Your task to perform on an android device: Search for pizza restaurants on Maps Image 0: 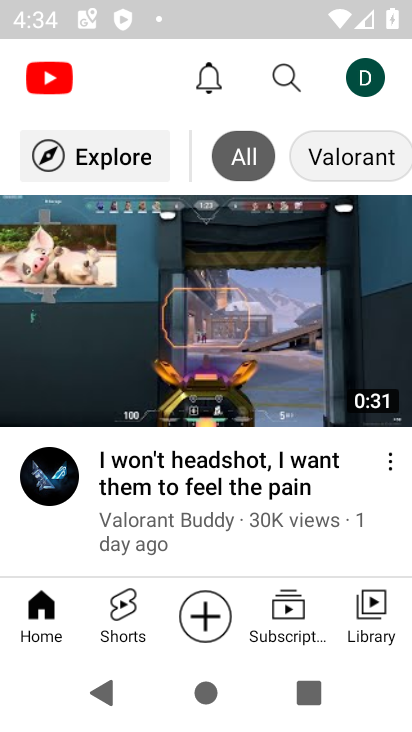
Step 0: press home button
Your task to perform on an android device: Search for pizza restaurants on Maps Image 1: 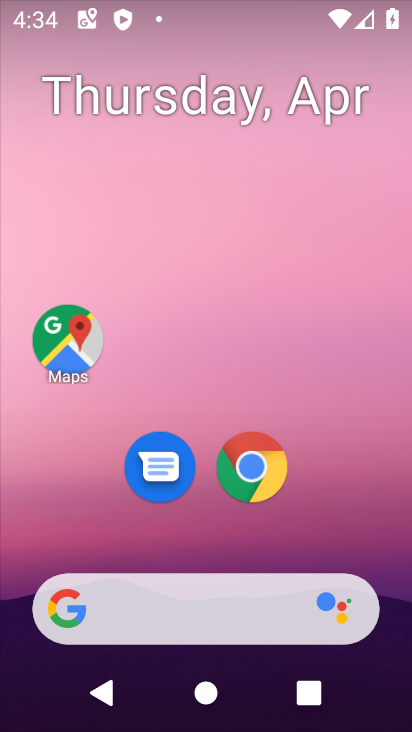
Step 1: click (76, 348)
Your task to perform on an android device: Search for pizza restaurants on Maps Image 2: 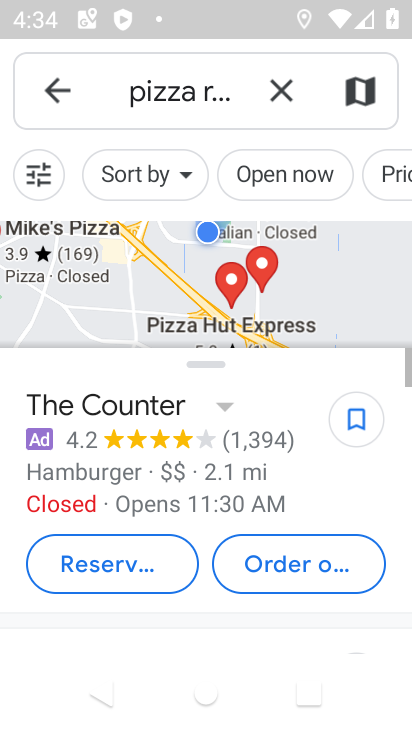
Step 2: task complete